Your task to perform on an android device: check google app version Image 0: 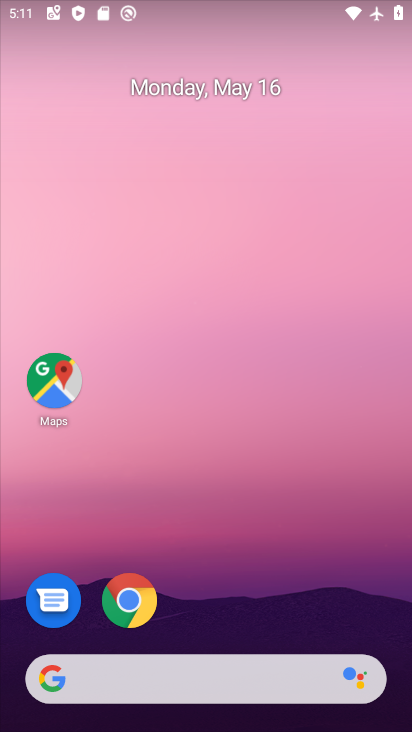
Step 0: drag from (205, 645) to (204, 28)
Your task to perform on an android device: check google app version Image 1: 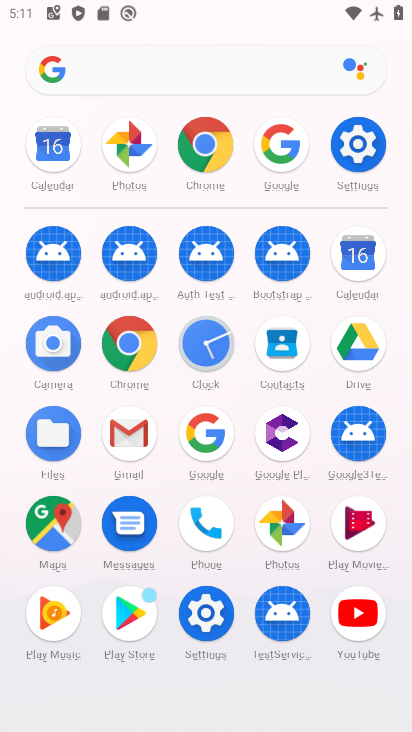
Step 1: click (287, 158)
Your task to perform on an android device: check google app version Image 2: 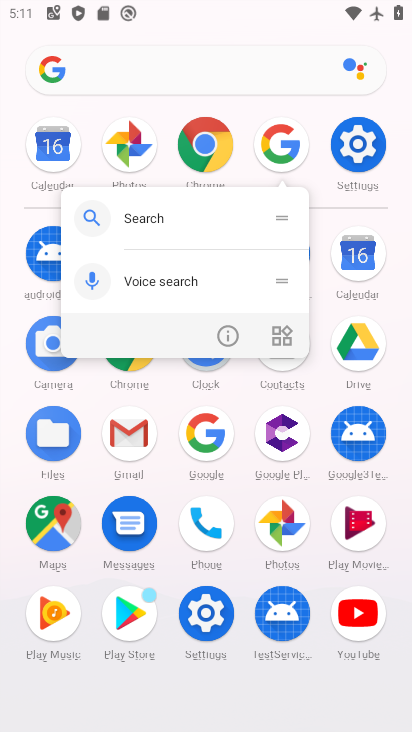
Step 2: click (237, 340)
Your task to perform on an android device: check google app version Image 3: 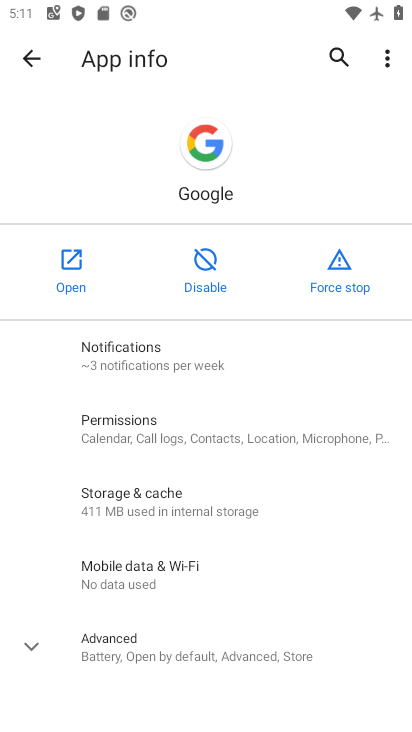
Step 3: drag from (255, 621) to (249, 247)
Your task to perform on an android device: check google app version Image 4: 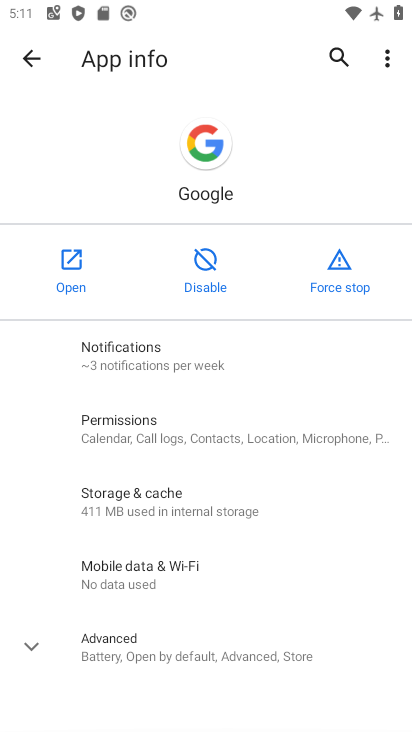
Step 4: click (147, 646)
Your task to perform on an android device: check google app version Image 5: 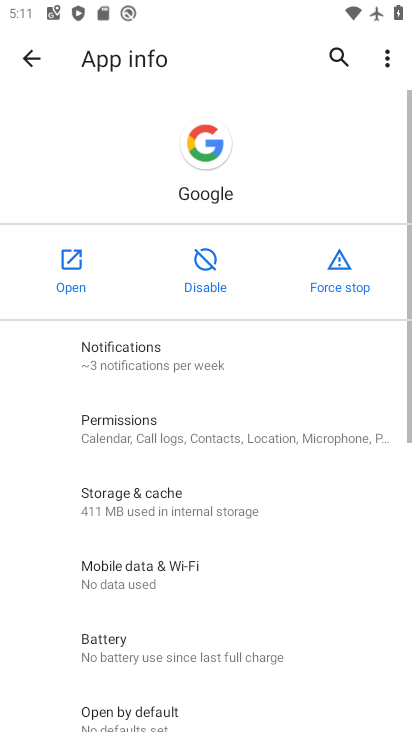
Step 5: drag from (181, 631) to (130, 108)
Your task to perform on an android device: check google app version Image 6: 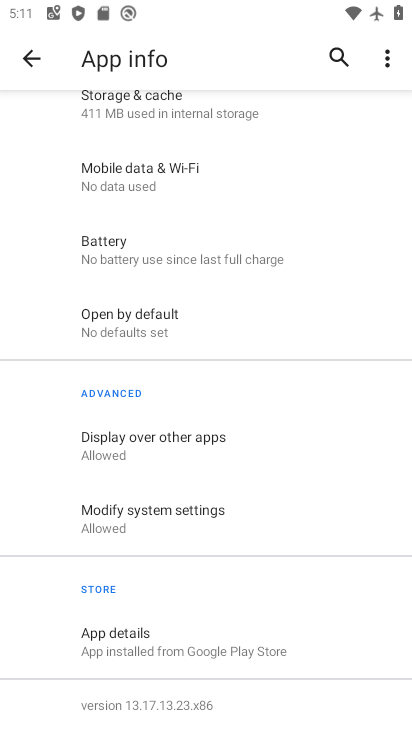
Step 6: click (191, 695)
Your task to perform on an android device: check google app version Image 7: 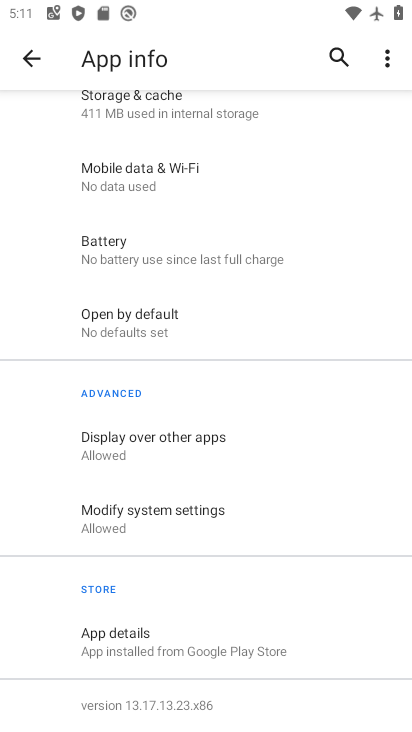
Step 7: task complete